Your task to perform on an android device: search for starred emails in the gmail app Image 0: 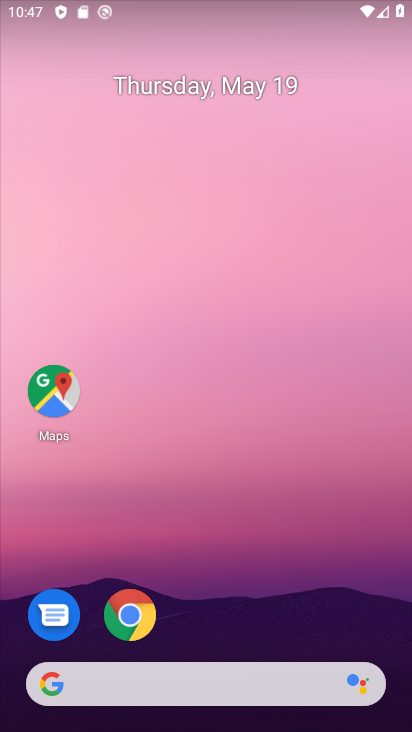
Step 0: drag from (311, 555) to (197, 54)
Your task to perform on an android device: search for starred emails in the gmail app Image 1: 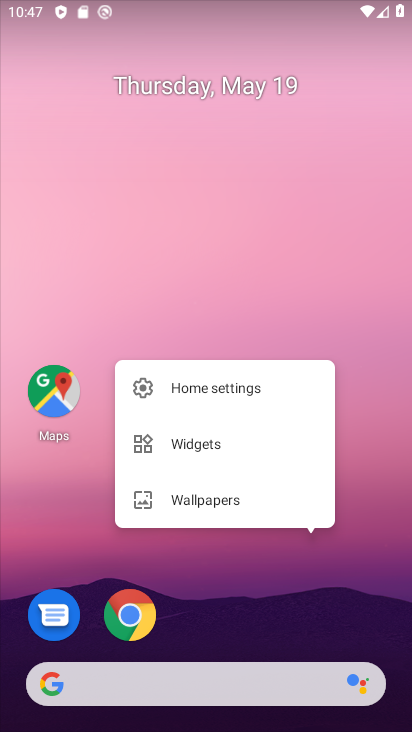
Step 1: drag from (250, 246) to (256, 0)
Your task to perform on an android device: search for starred emails in the gmail app Image 2: 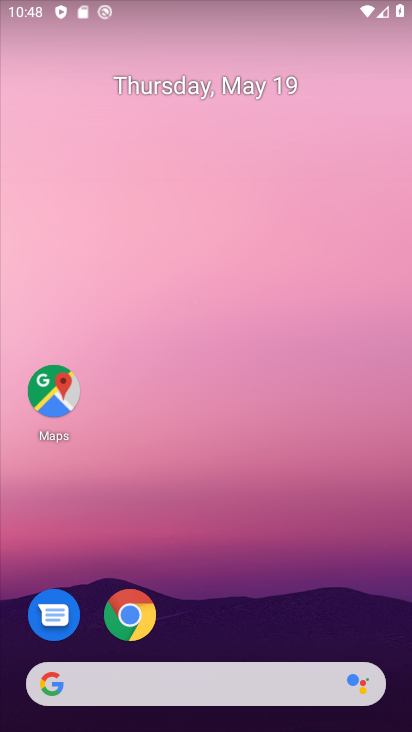
Step 2: drag from (306, 537) to (226, 58)
Your task to perform on an android device: search for starred emails in the gmail app Image 3: 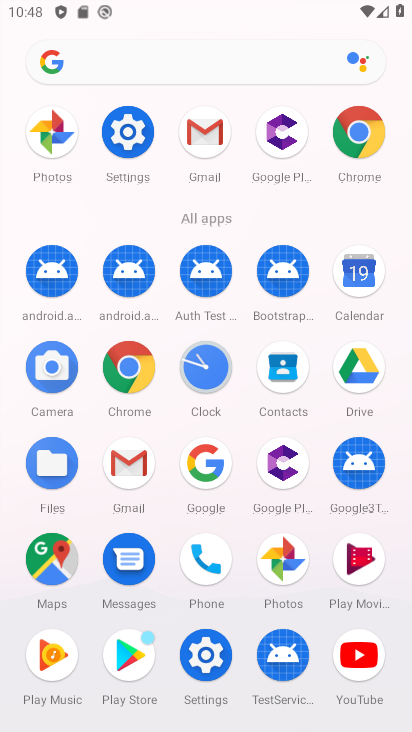
Step 3: click (116, 461)
Your task to perform on an android device: search for starred emails in the gmail app Image 4: 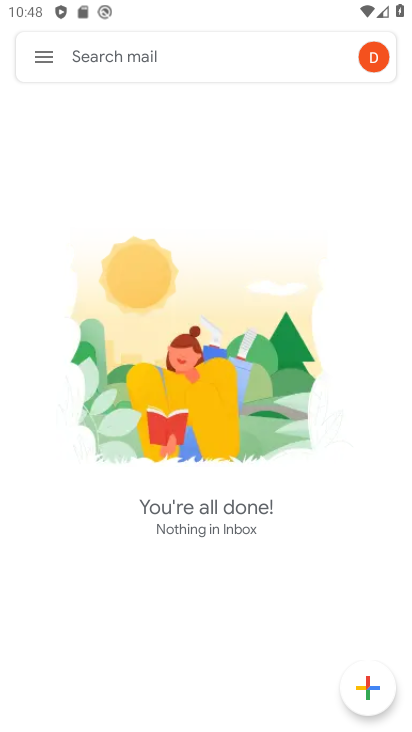
Step 4: click (35, 50)
Your task to perform on an android device: search for starred emails in the gmail app Image 5: 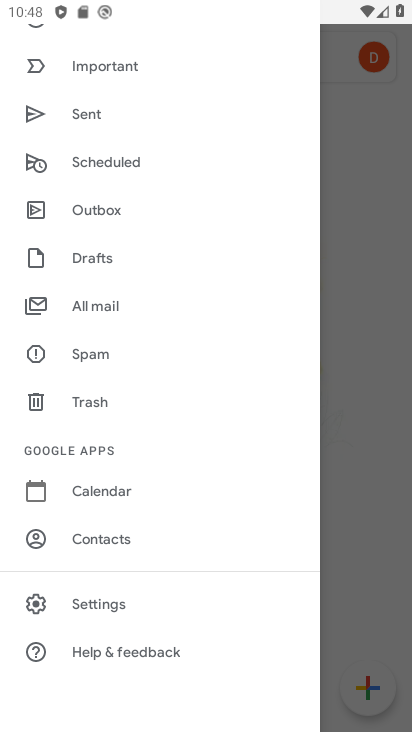
Step 5: drag from (127, 198) to (178, 468)
Your task to perform on an android device: search for starred emails in the gmail app Image 6: 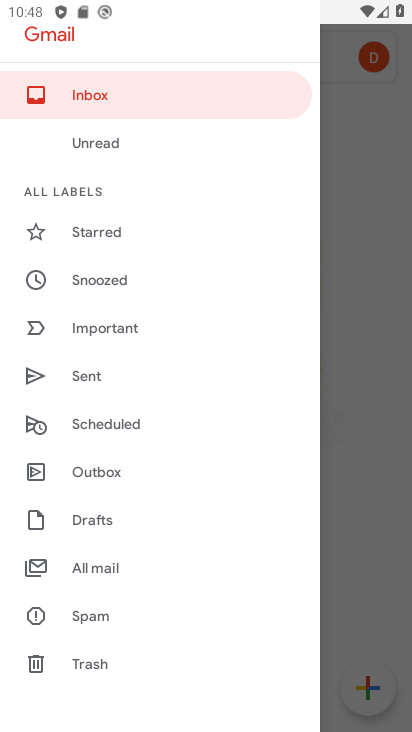
Step 6: click (96, 225)
Your task to perform on an android device: search for starred emails in the gmail app Image 7: 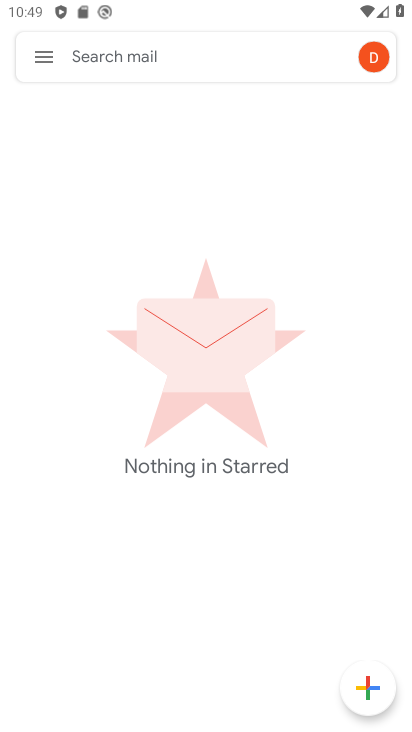
Step 7: task complete